Your task to perform on an android device: open a bookmark in the chrome app Image 0: 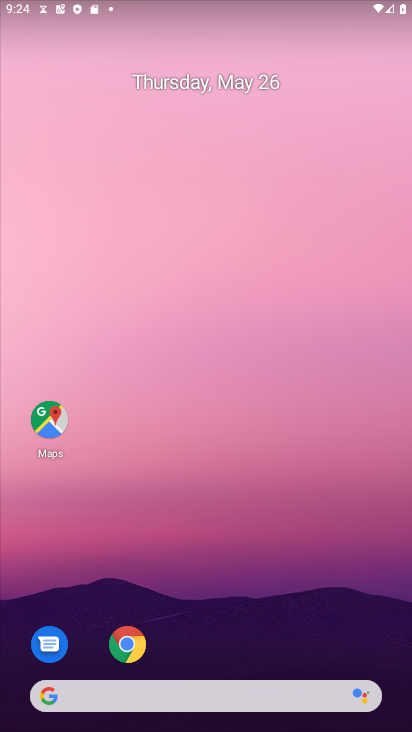
Step 0: click (124, 630)
Your task to perform on an android device: open a bookmark in the chrome app Image 1: 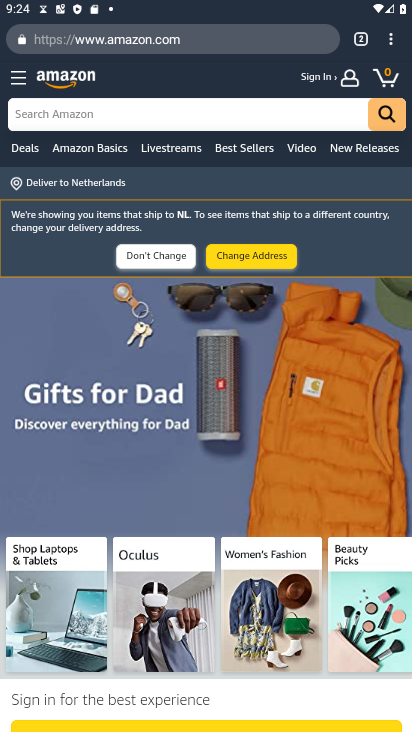
Step 1: drag from (390, 34) to (257, 193)
Your task to perform on an android device: open a bookmark in the chrome app Image 2: 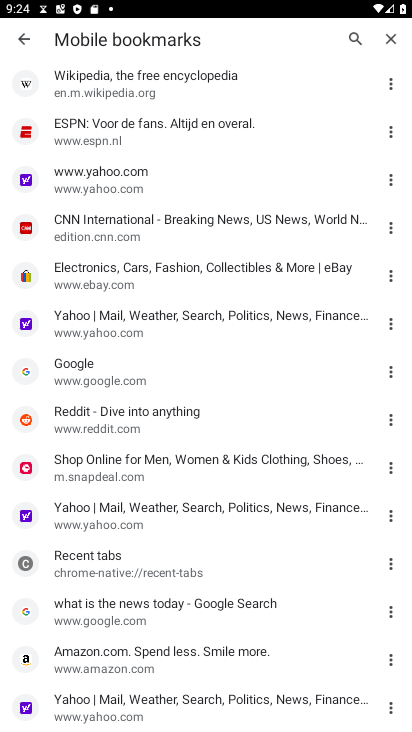
Step 2: click (121, 216)
Your task to perform on an android device: open a bookmark in the chrome app Image 3: 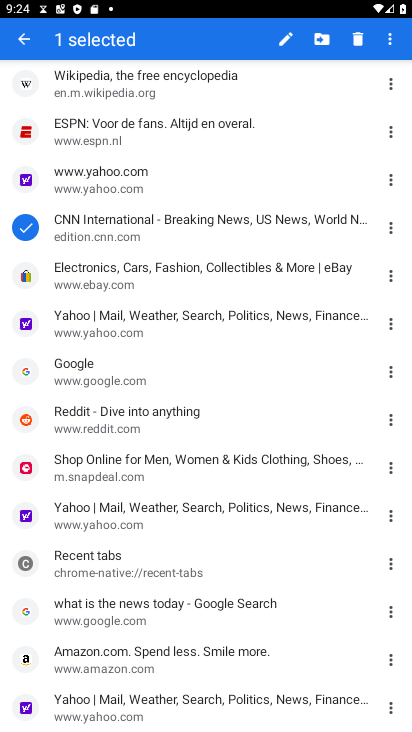
Step 3: click (213, 237)
Your task to perform on an android device: open a bookmark in the chrome app Image 4: 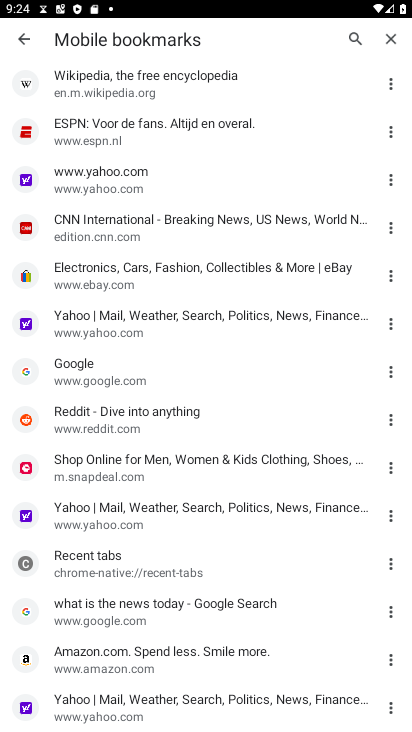
Step 4: click (171, 230)
Your task to perform on an android device: open a bookmark in the chrome app Image 5: 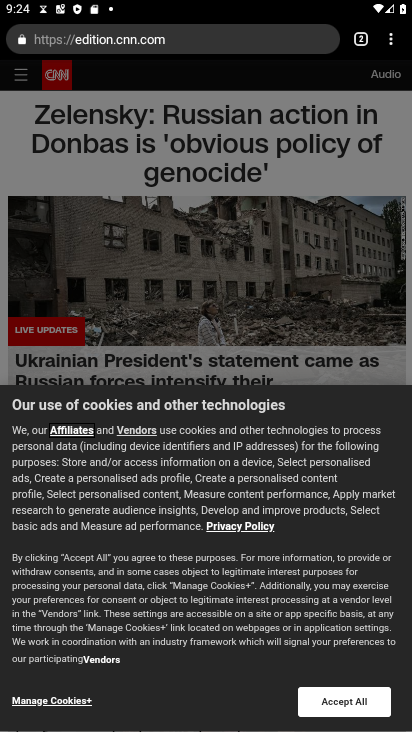
Step 5: task complete